Your task to perform on an android device: open wifi settings Image 0: 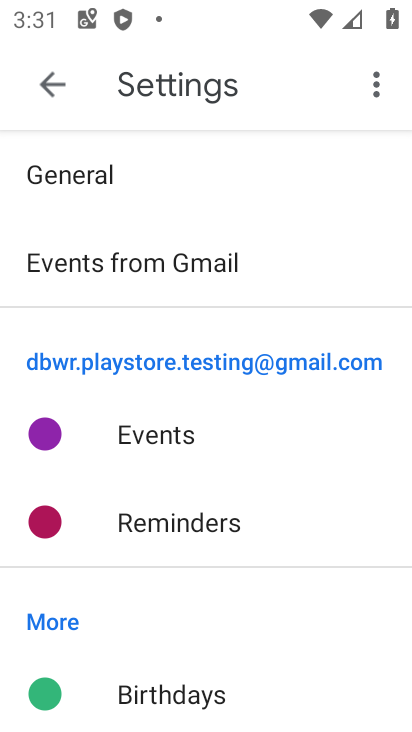
Step 0: press home button
Your task to perform on an android device: open wifi settings Image 1: 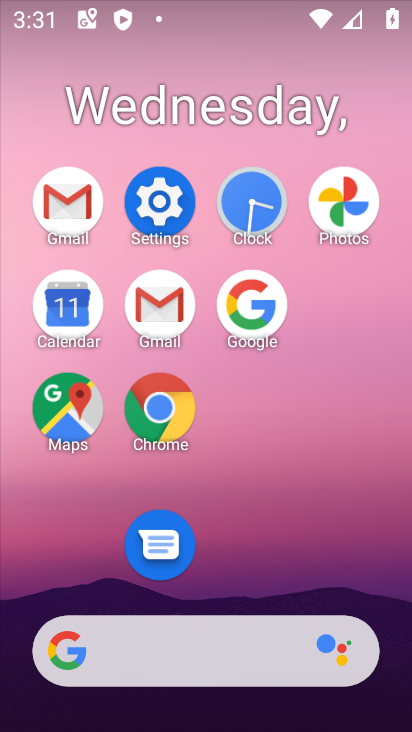
Step 1: click (156, 214)
Your task to perform on an android device: open wifi settings Image 2: 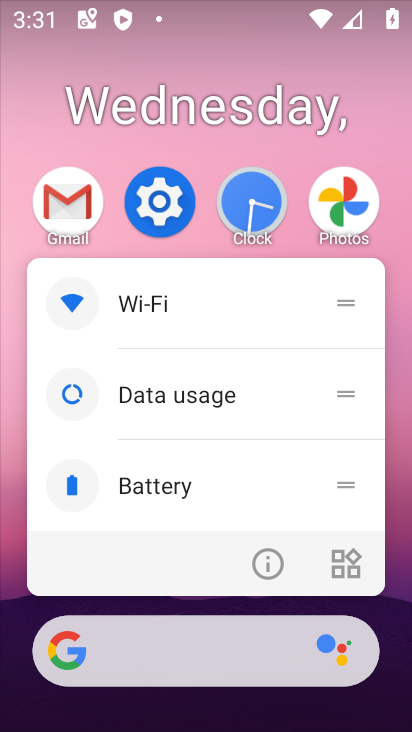
Step 2: click (152, 311)
Your task to perform on an android device: open wifi settings Image 3: 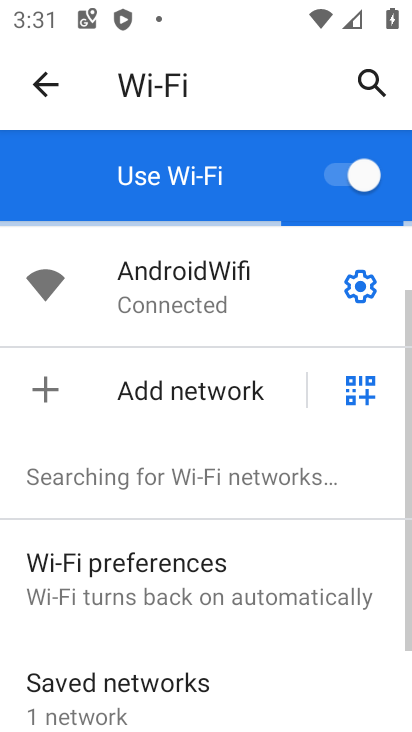
Step 3: click (361, 281)
Your task to perform on an android device: open wifi settings Image 4: 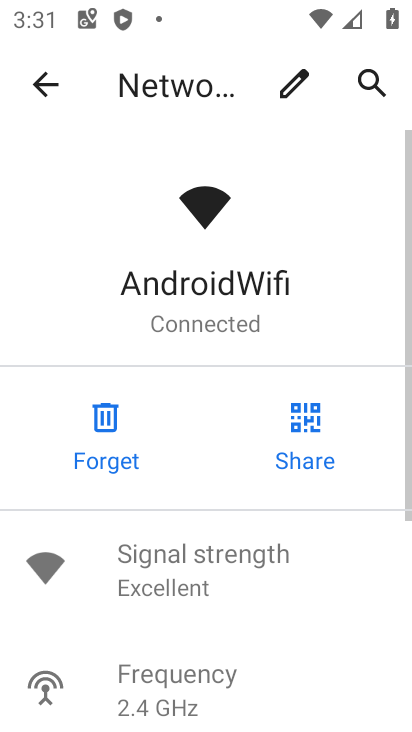
Step 4: task complete